Your task to perform on an android device: turn off translation in the chrome app Image 0: 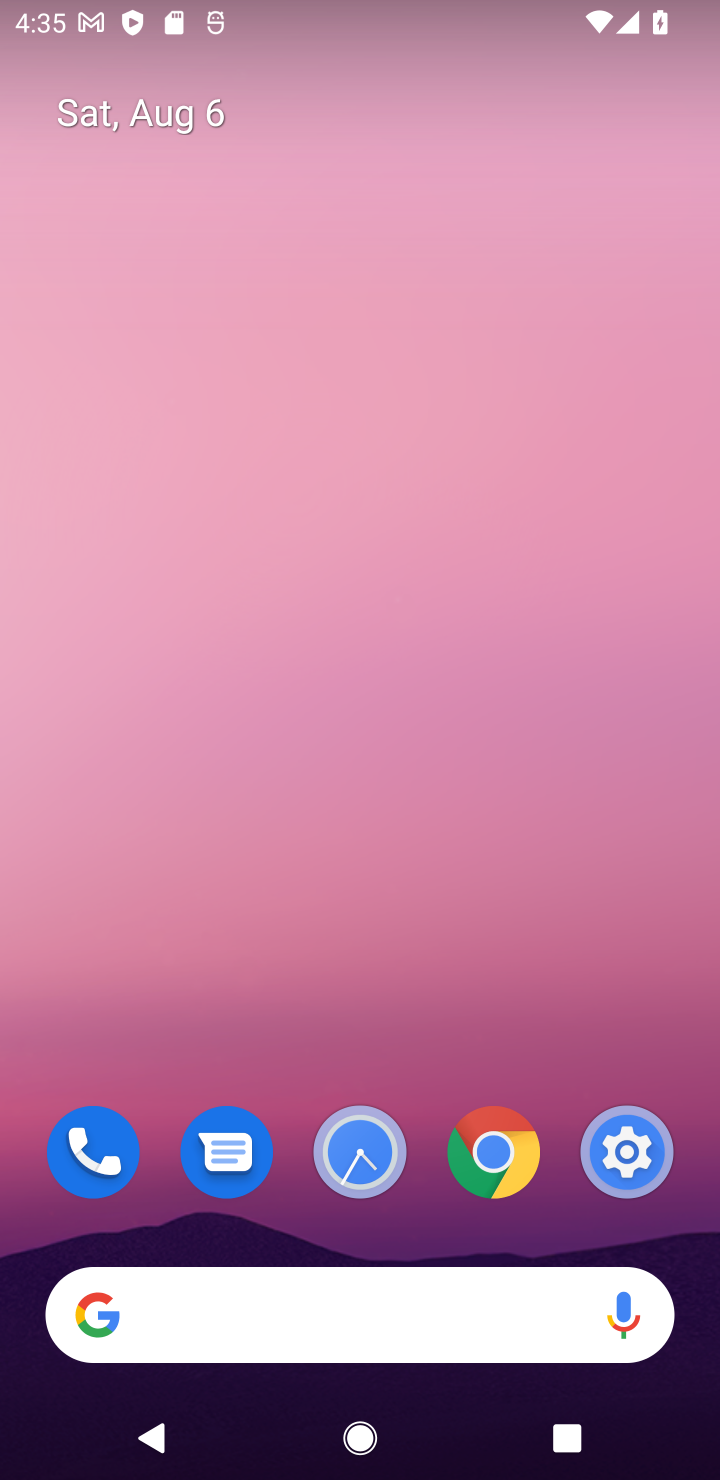
Step 0: drag from (575, 963) to (626, 161)
Your task to perform on an android device: turn off translation in the chrome app Image 1: 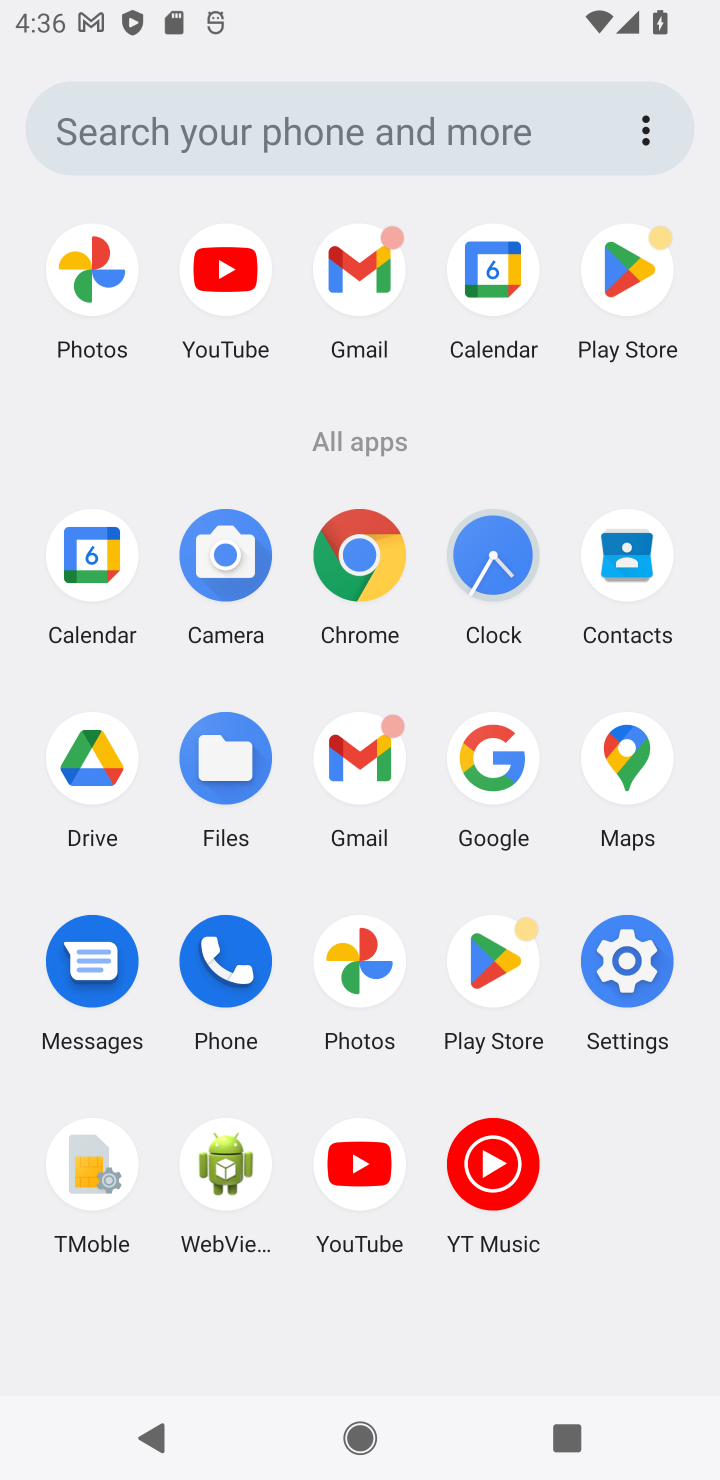
Step 1: click (370, 554)
Your task to perform on an android device: turn off translation in the chrome app Image 2: 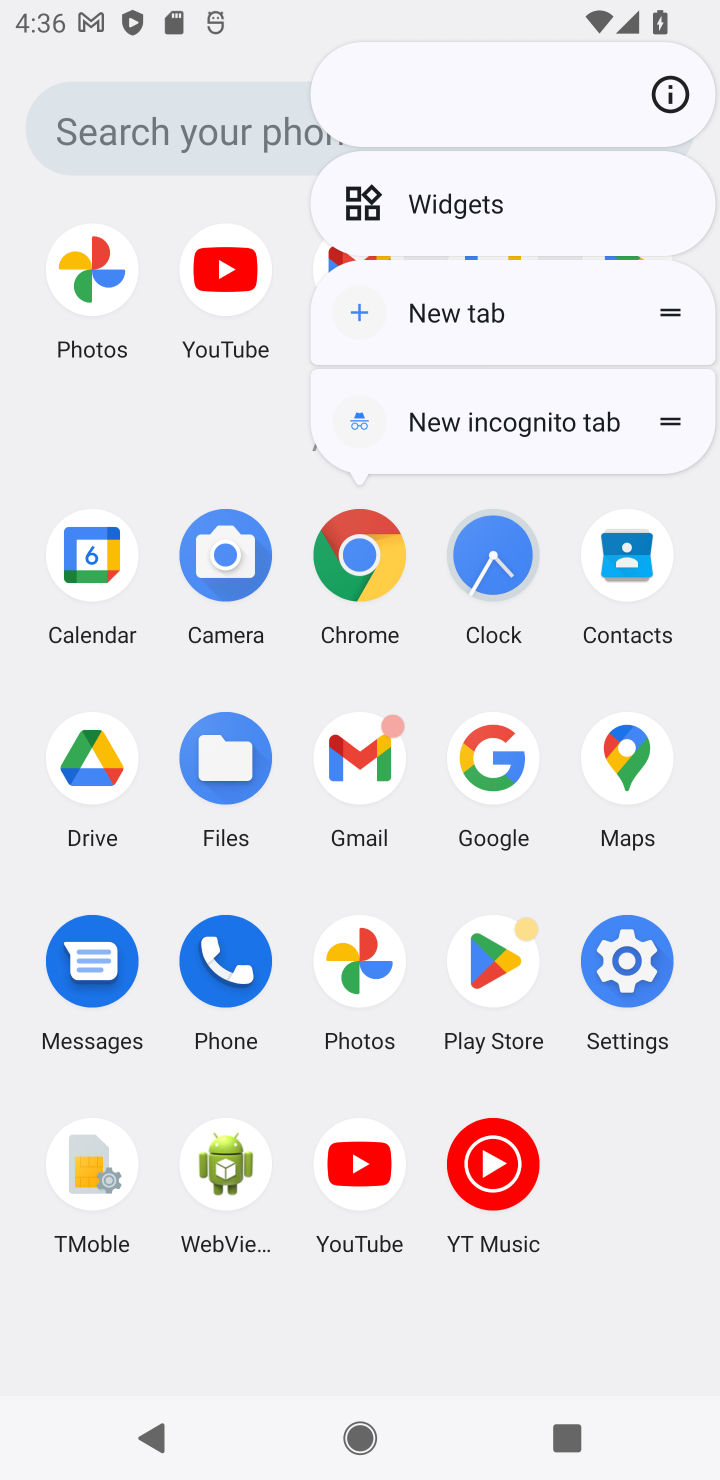
Step 2: click (369, 558)
Your task to perform on an android device: turn off translation in the chrome app Image 3: 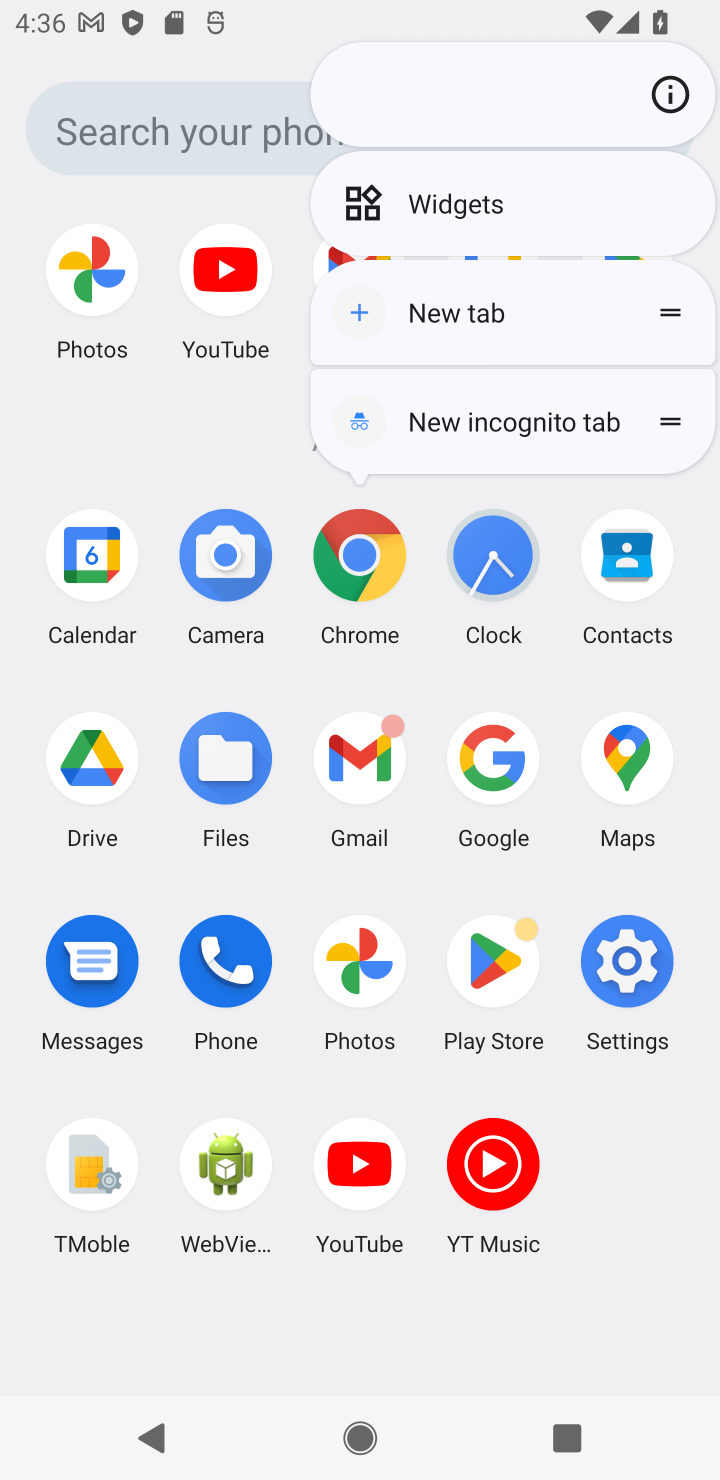
Step 3: click (358, 561)
Your task to perform on an android device: turn off translation in the chrome app Image 4: 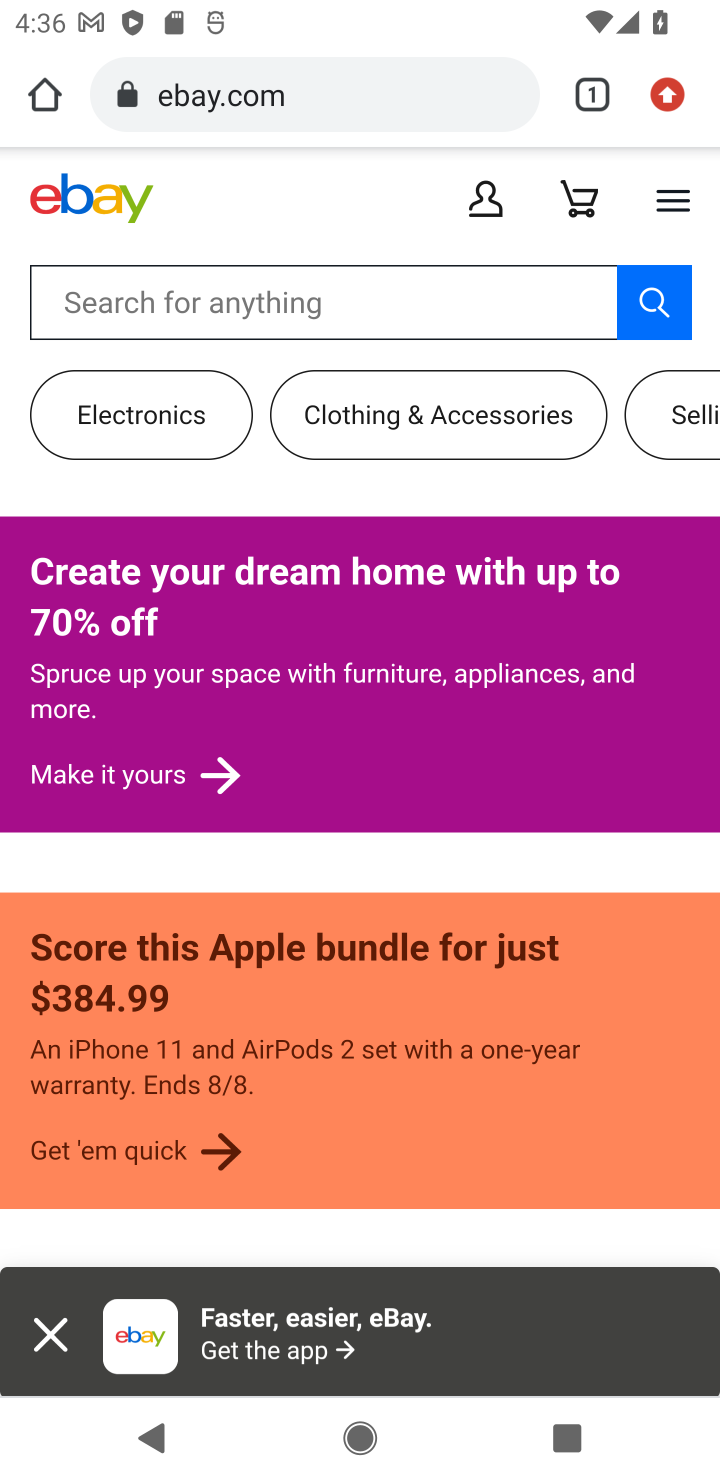
Step 4: drag from (692, 81) to (444, 1238)
Your task to perform on an android device: turn off translation in the chrome app Image 5: 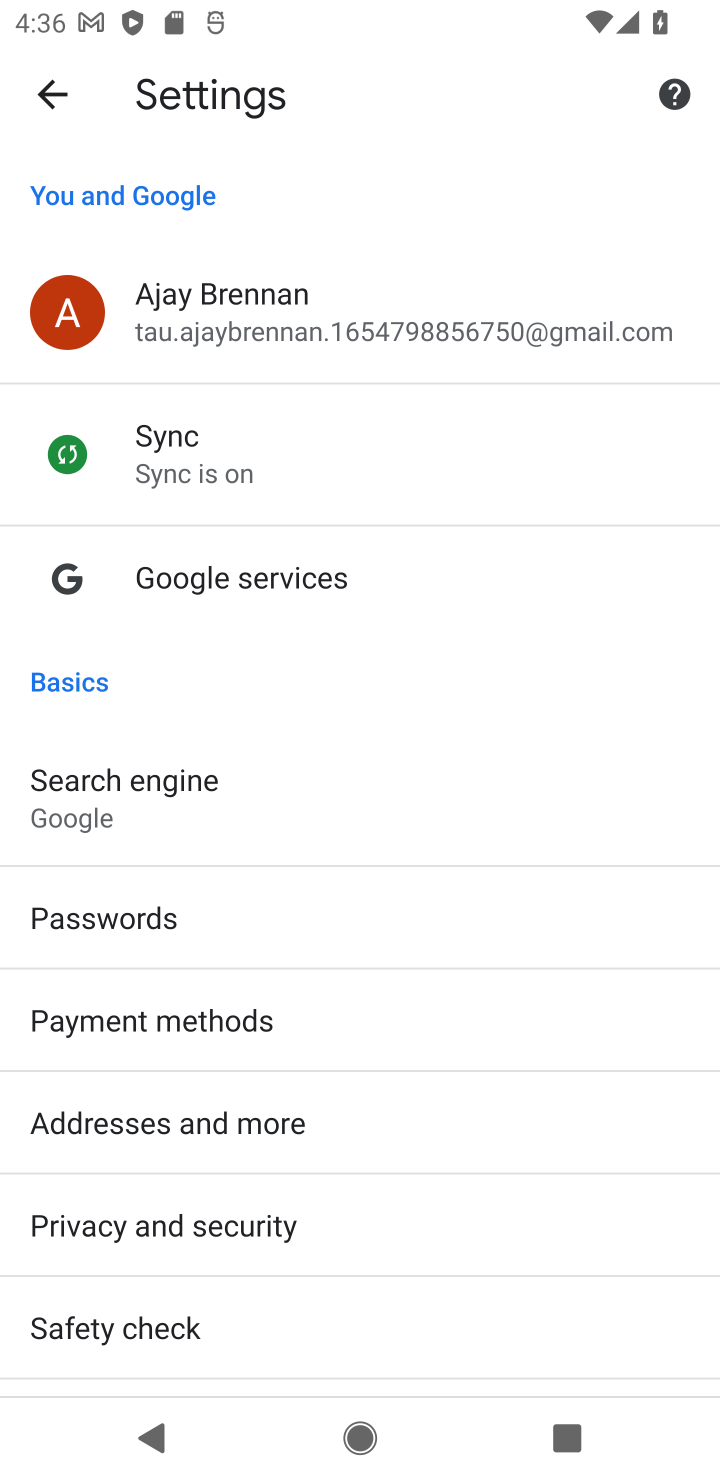
Step 5: drag from (442, 1219) to (604, 563)
Your task to perform on an android device: turn off translation in the chrome app Image 6: 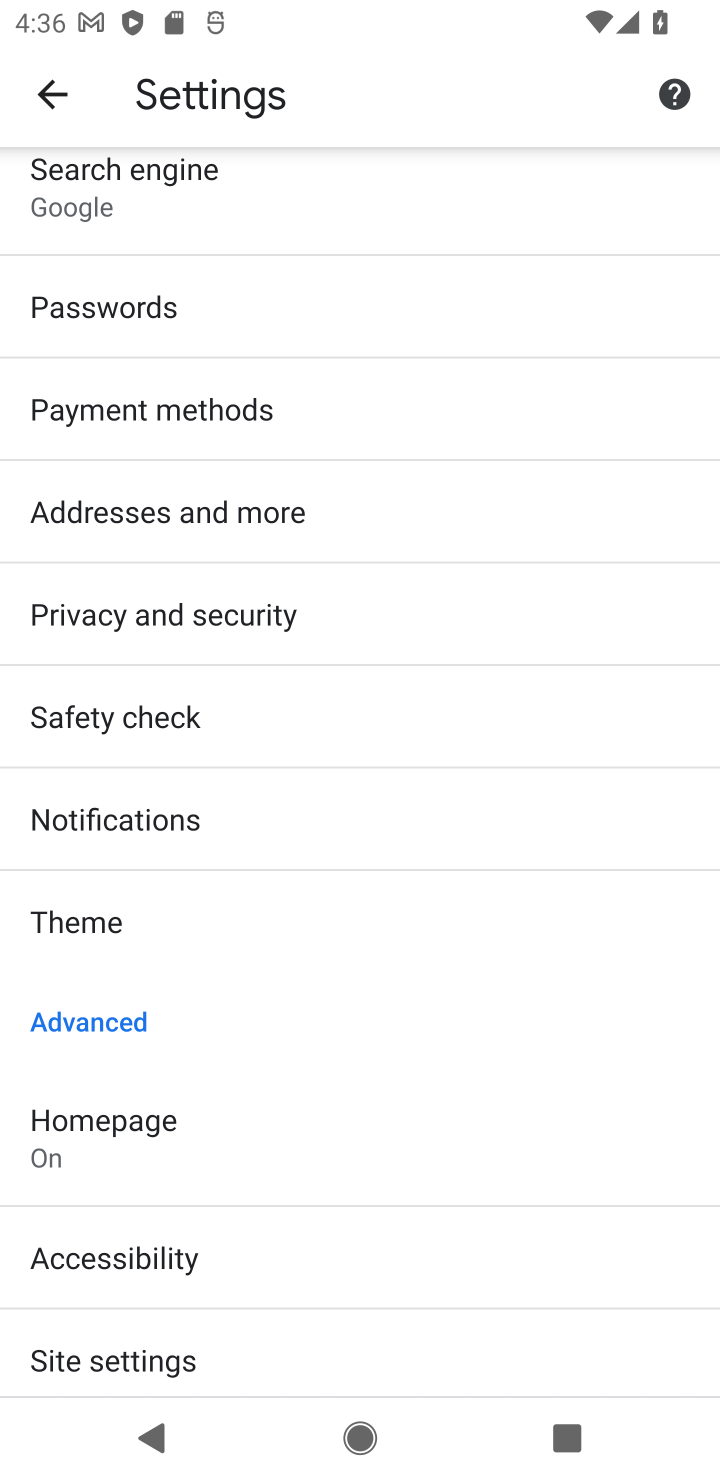
Step 6: click (208, 1352)
Your task to perform on an android device: turn off translation in the chrome app Image 7: 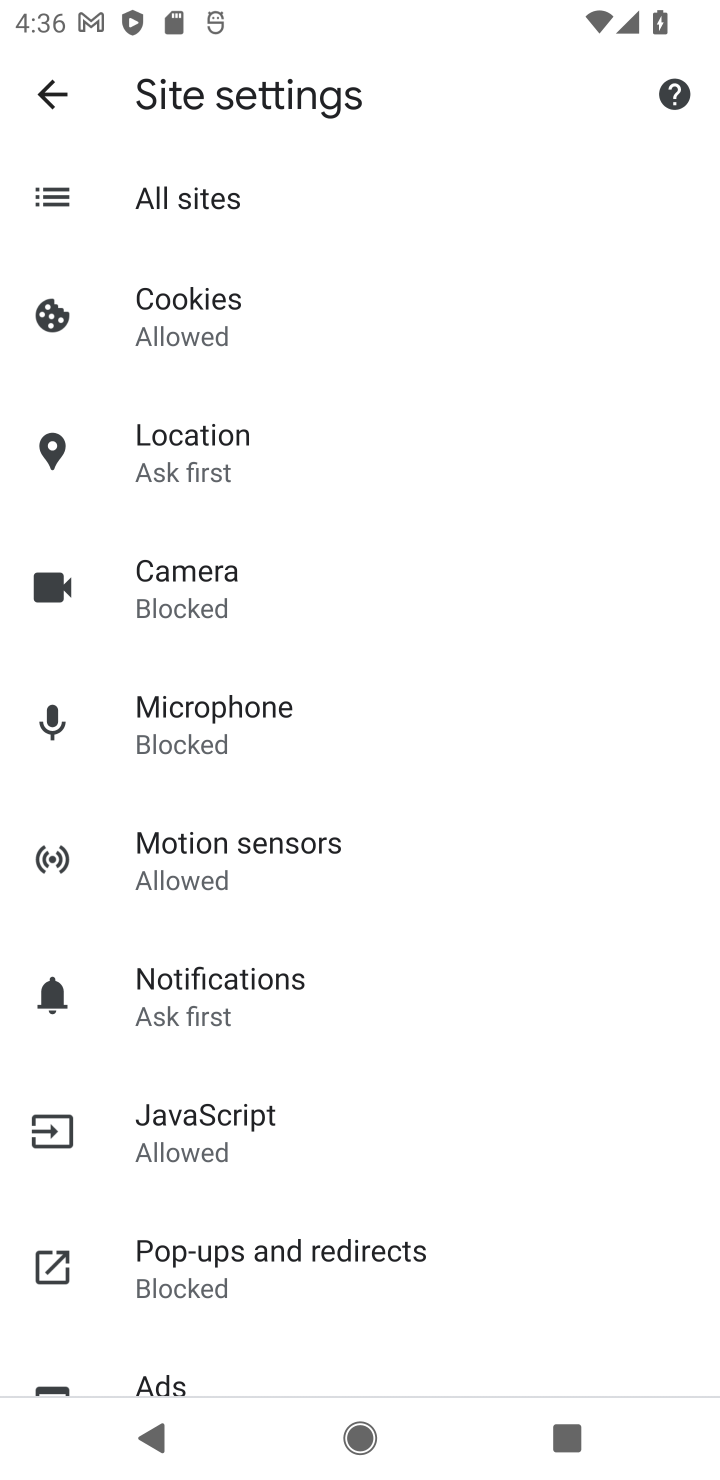
Step 7: drag from (584, 1228) to (511, 429)
Your task to perform on an android device: turn off translation in the chrome app Image 8: 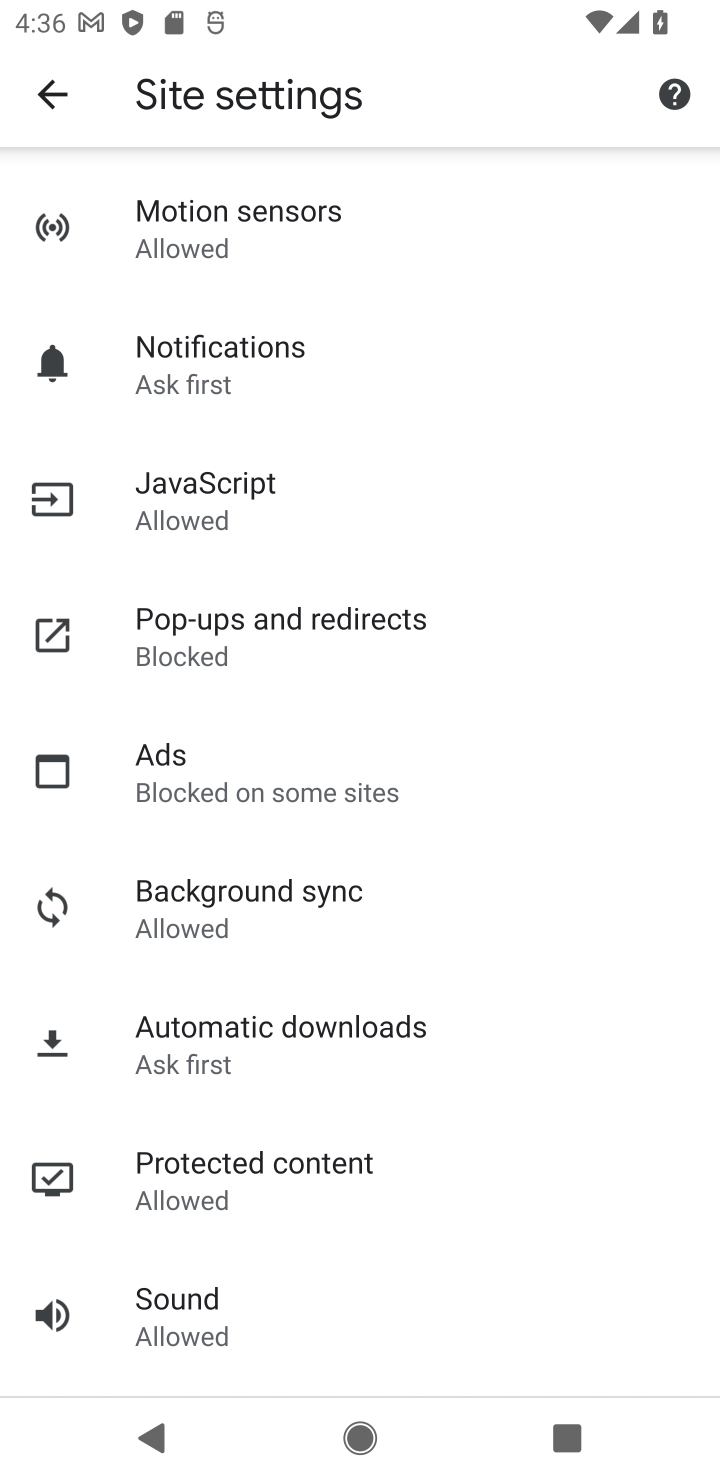
Step 8: click (60, 130)
Your task to perform on an android device: turn off translation in the chrome app Image 9: 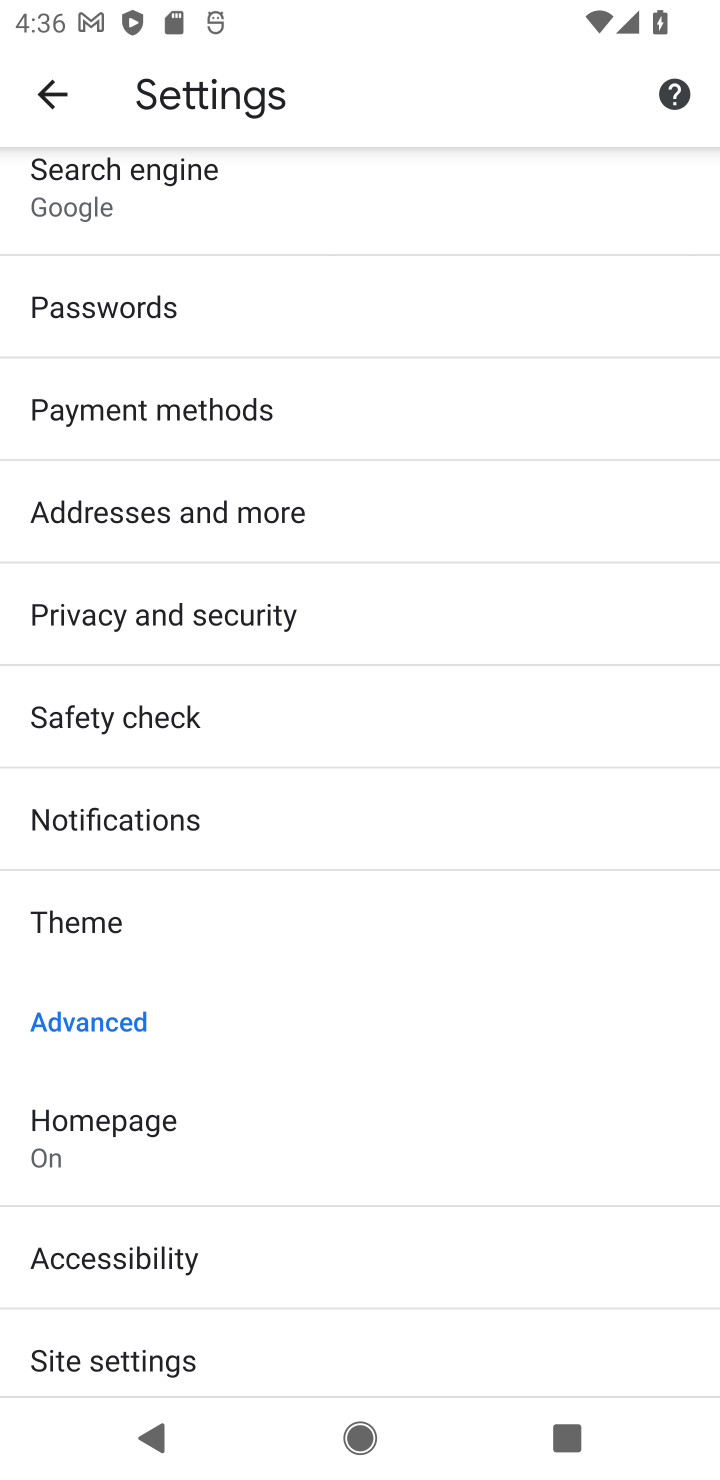
Step 9: drag from (409, 960) to (558, 343)
Your task to perform on an android device: turn off translation in the chrome app Image 10: 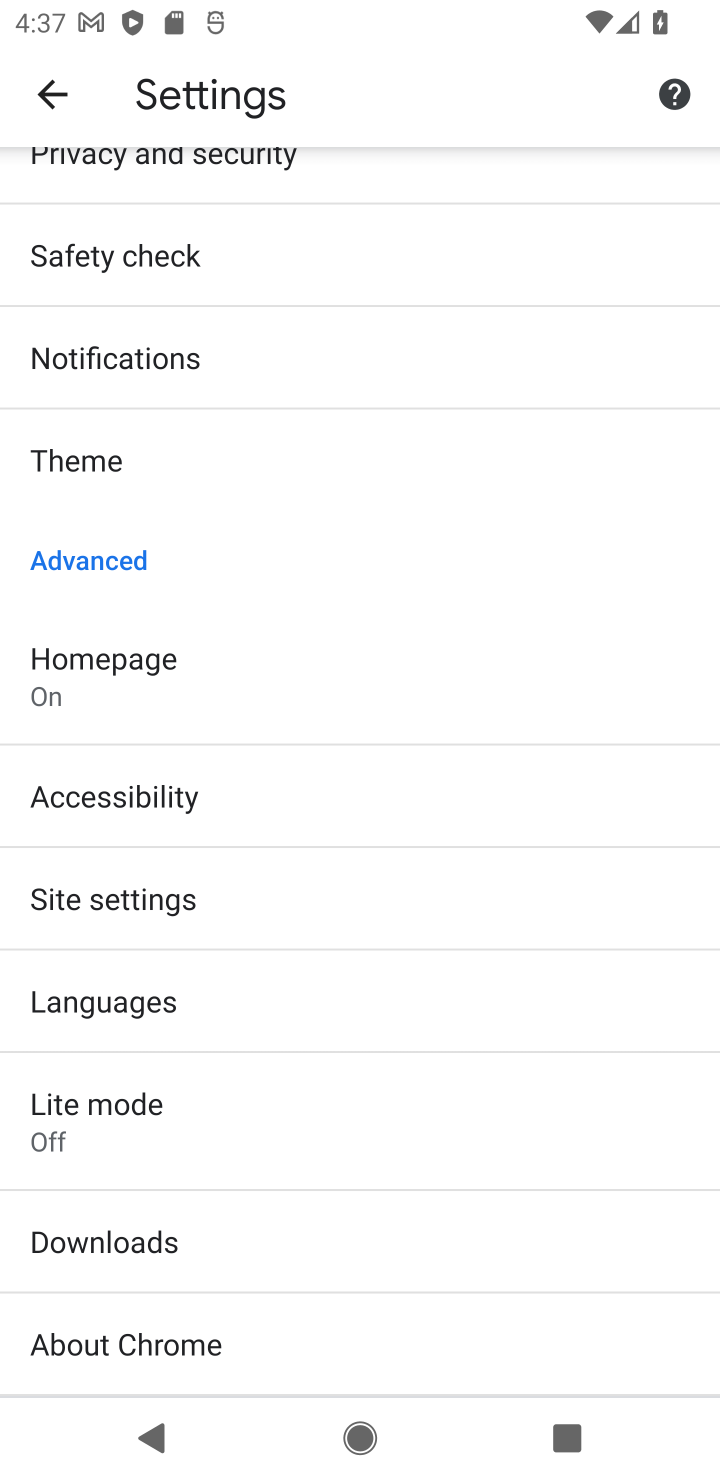
Step 10: click (168, 1004)
Your task to perform on an android device: turn off translation in the chrome app Image 11: 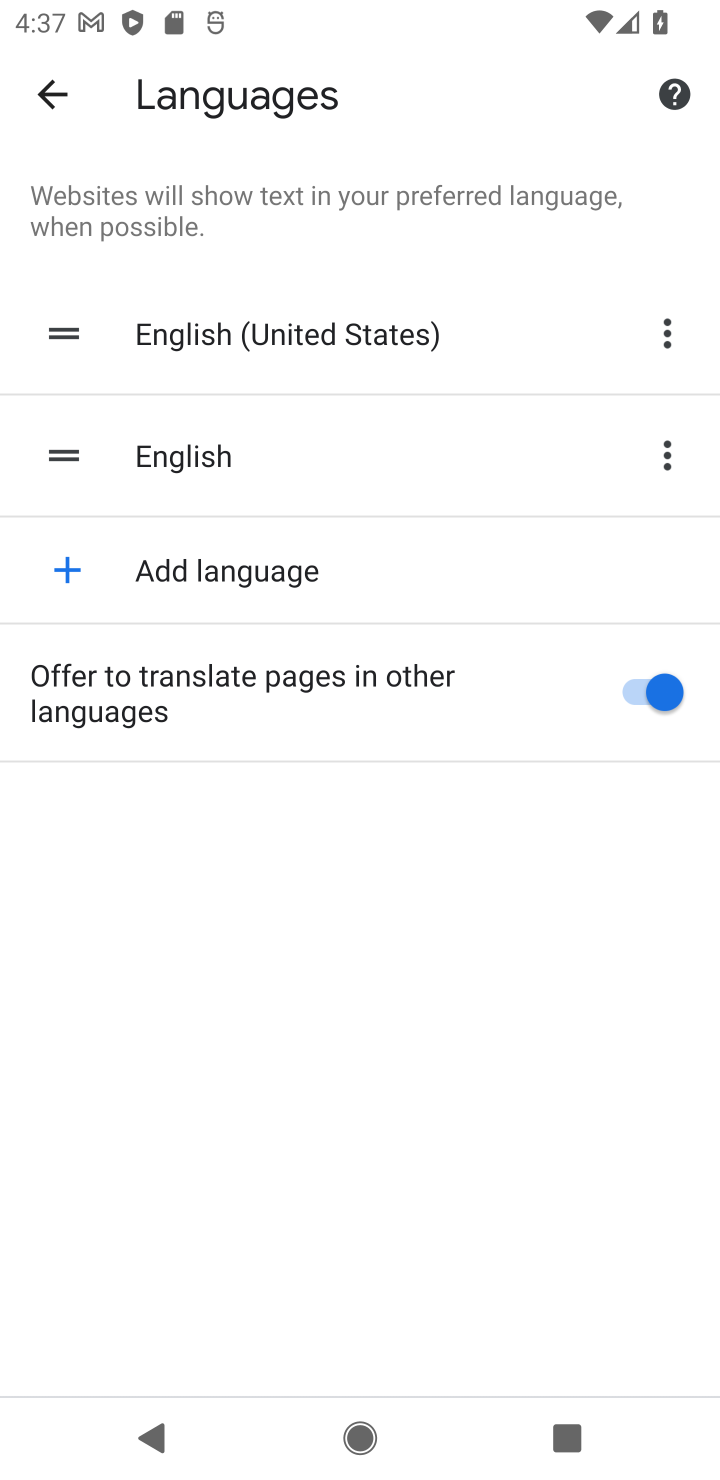
Step 11: click (645, 701)
Your task to perform on an android device: turn off translation in the chrome app Image 12: 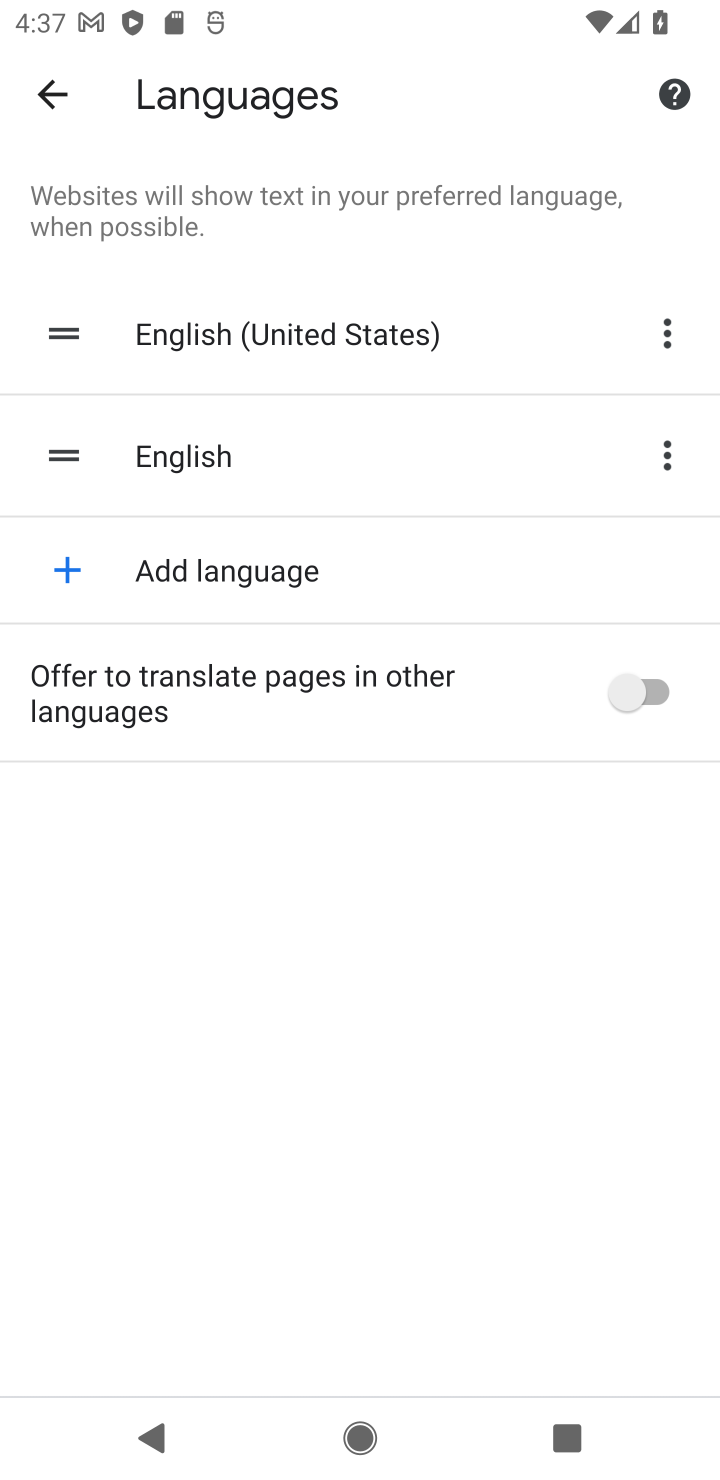
Step 12: task complete